Your task to perform on an android device: turn off notifications settings in the gmail app Image 0: 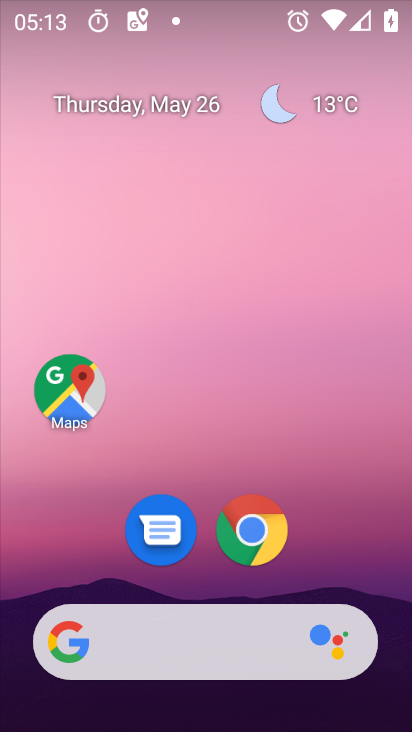
Step 0: drag from (281, 665) to (406, 409)
Your task to perform on an android device: turn off notifications settings in the gmail app Image 1: 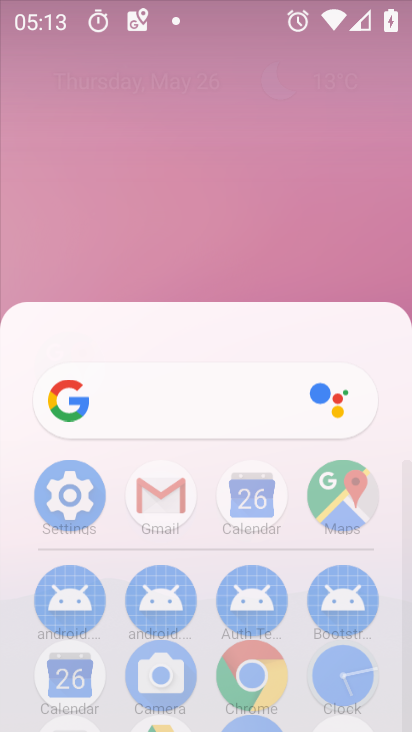
Step 1: click (355, 448)
Your task to perform on an android device: turn off notifications settings in the gmail app Image 2: 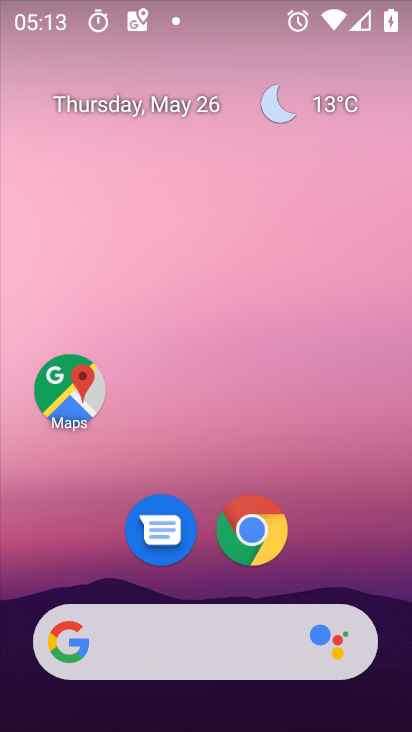
Step 2: drag from (251, 624) to (317, 46)
Your task to perform on an android device: turn off notifications settings in the gmail app Image 3: 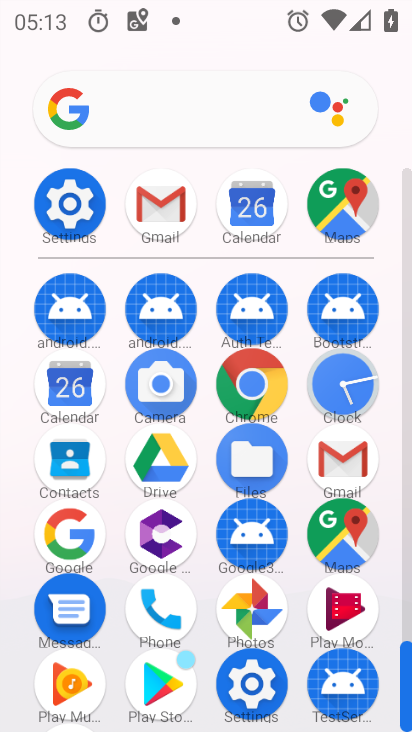
Step 3: click (342, 464)
Your task to perform on an android device: turn off notifications settings in the gmail app Image 4: 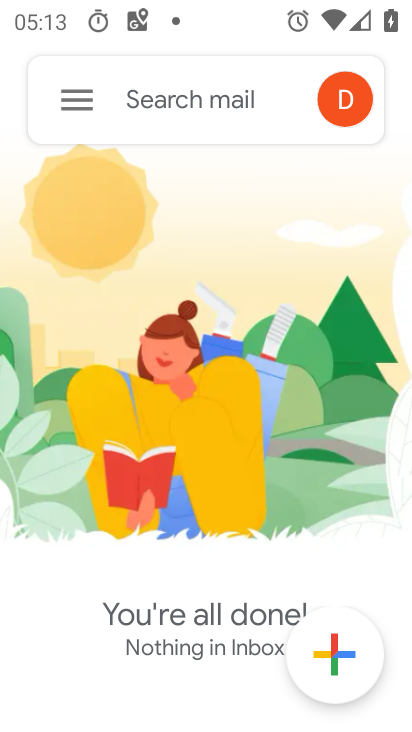
Step 4: click (75, 101)
Your task to perform on an android device: turn off notifications settings in the gmail app Image 5: 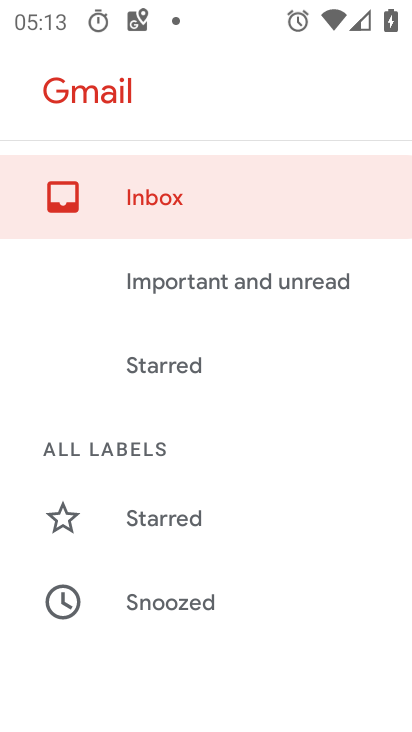
Step 5: drag from (178, 561) to (345, 19)
Your task to perform on an android device: turn off notifications settings in the gmail app Image 6: 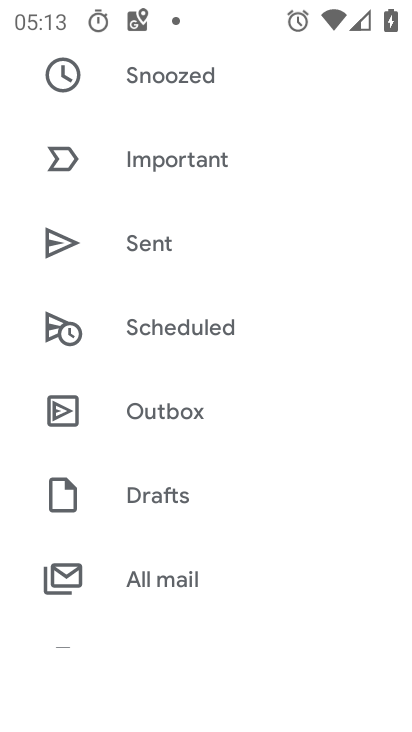
Step 6: drag from (239, 599) to (316, 170)
Your task to perform on an android device: turn off notifications settings in the gmail app Image 7: 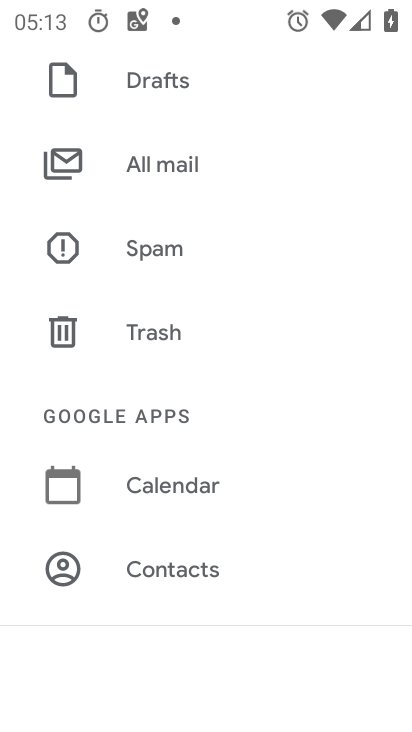
Step 7: drag from (172, 584) to (216, 173)
Your task to perform on an android device: turn off notifications settings in the gmail app Image 8: 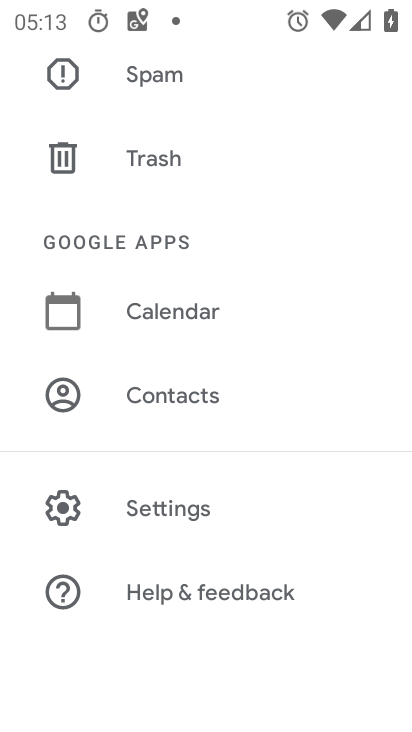
Step 8: click (193, 499)
Your task to perform on an android device: turn off notifications settings in the gmail app Image 9: 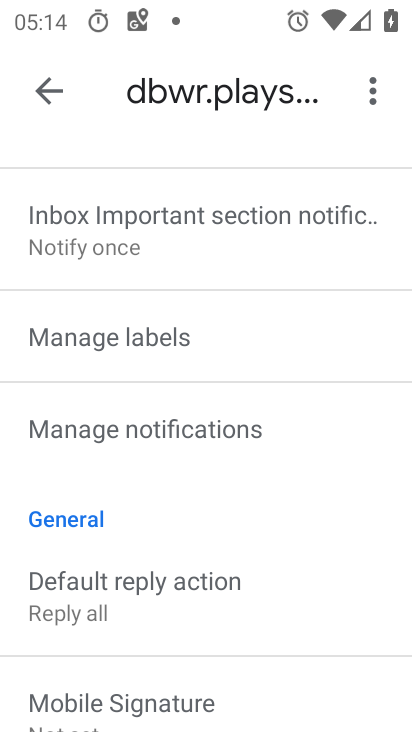
Step 9: click (182, 405)
Your task to perform on an android device: turn off notifications settings in the gmail app Image 10: 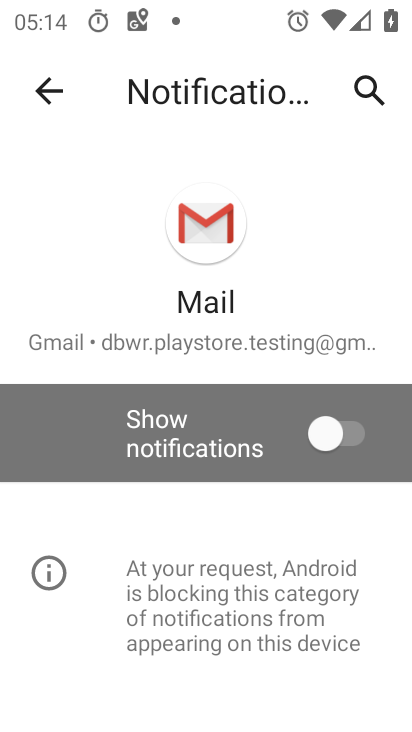
Step 10: task complete